Your task to perform on an android device: Go to accessibility settings Image 0: 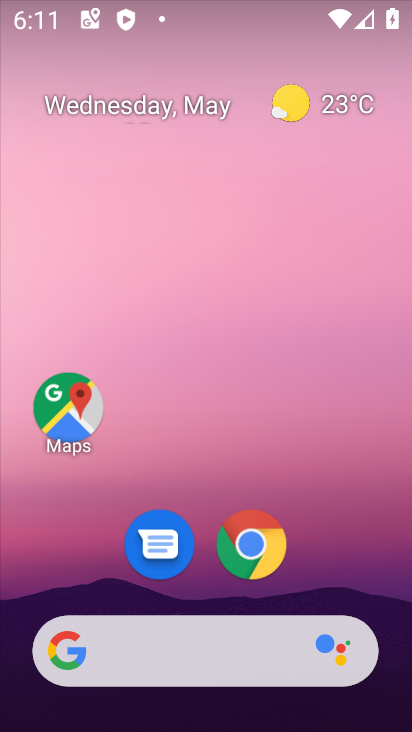
Step 0: drag from (341, 496) to (202, 19)
Your task to perform on an android device: Go to accessibility settings Image 1: 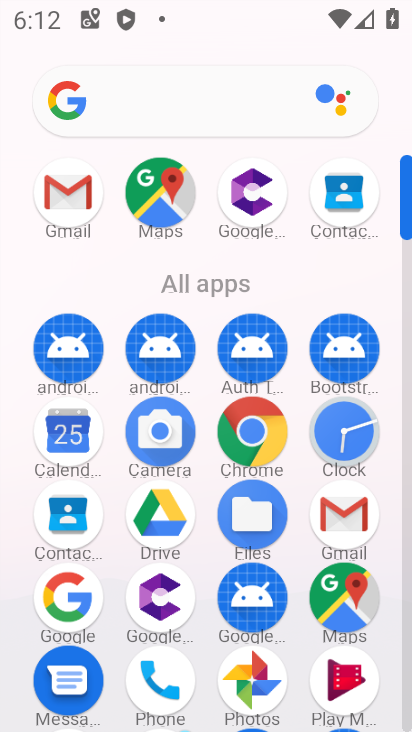
Step 1: drag from (202, 552) to (164, 176)
Your task to perform on an android device: Go to accessibility settings Image 2: 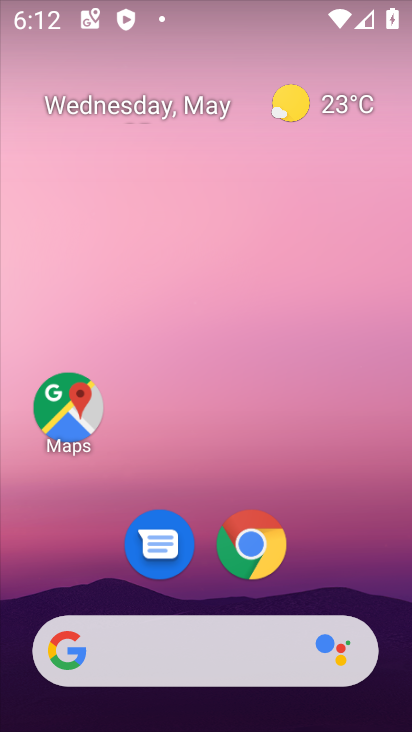
Step 2: drag from (279, 489) to (289, 131)
Your task to perform on an android device: Go to accessibility settings Image 3: 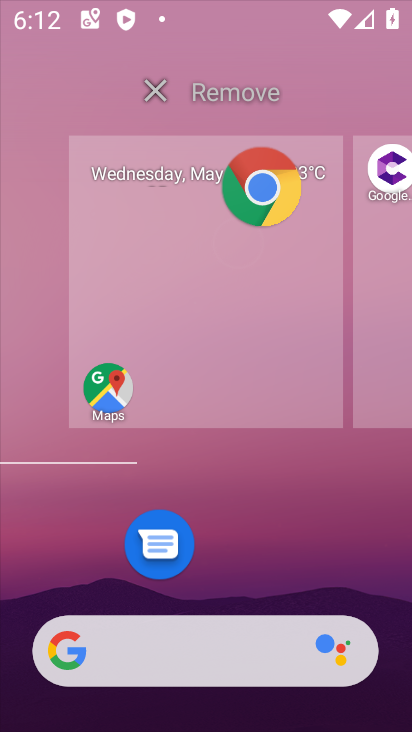
Step 3: click (341, 311)
Your task to perform on an android device: Go to accessibility settings Image 4: 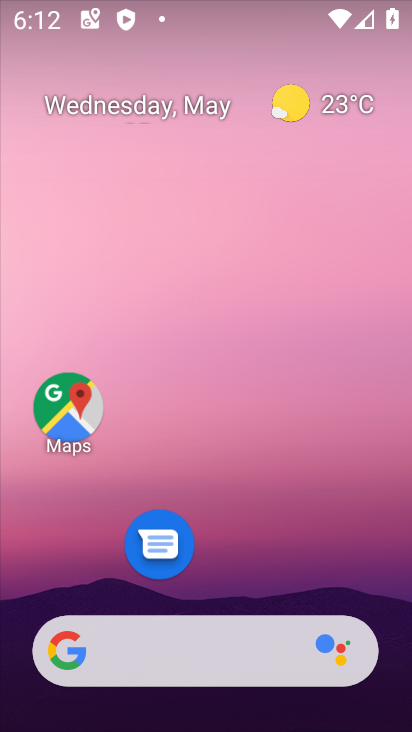
Step 4: click (341, 542)
Your task to perform on an android device: Go to accessibility settings Image 5: 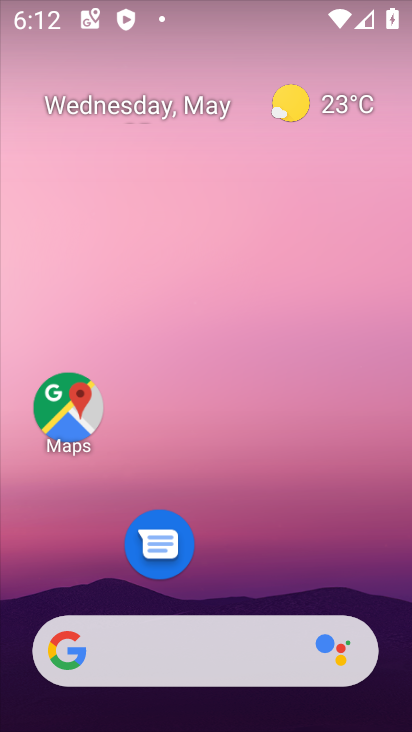
Step 5: drag from (283, 499) to (247, 129)
Your task to perform on an android device: Go to accessibility settings Image 6: 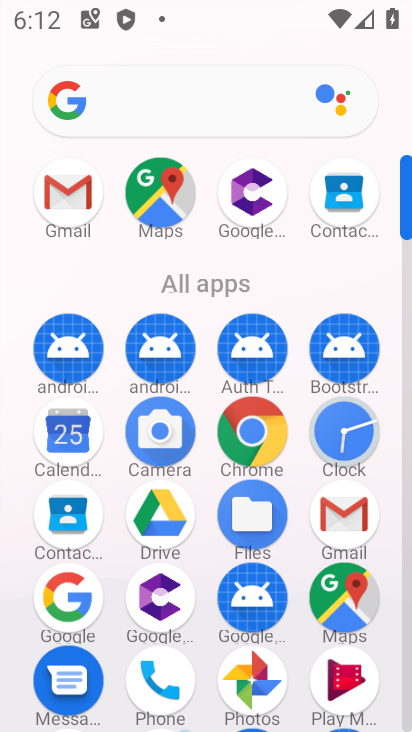
Step 6: drag from (209, 559) to (181, 236)
Your task to perform on an android device: Go to accessibility settings Image 7: 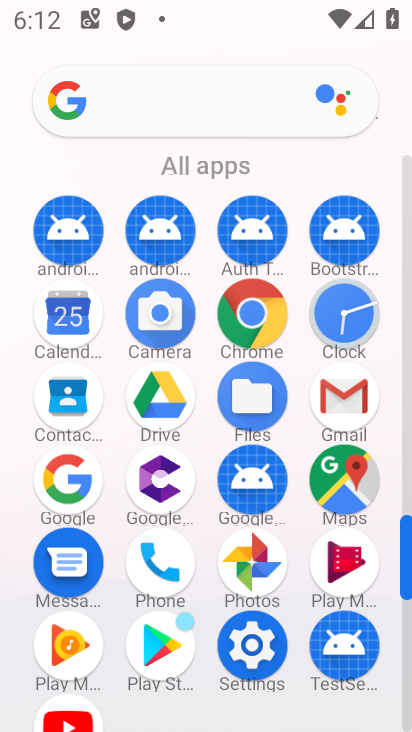
Step 7: click (253, 642)
Your task to perform on an android device: Go to accessibility settings Image 8: 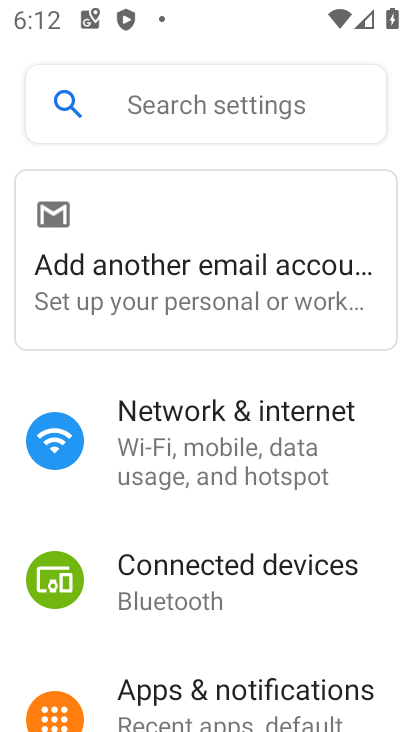
Step 8: drag from (254, 624) to (188, 252)
Your task to perform on an android device: Go to accessibility settings Image 9: 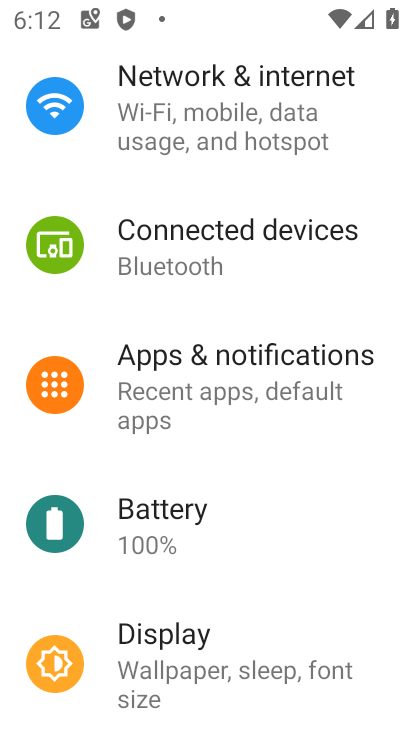
Step 9: drag from (257, 584) to (236, 234)
Your task to perform on an android device: Go to accessibility settings Image 10: 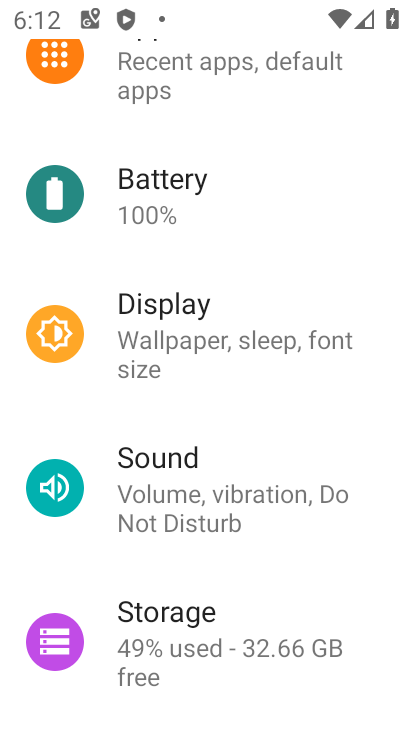
Step 10: drag from (281, 559) to (260, 209)
Your task to perform on an android device: Go to accessibility settings Image 11: 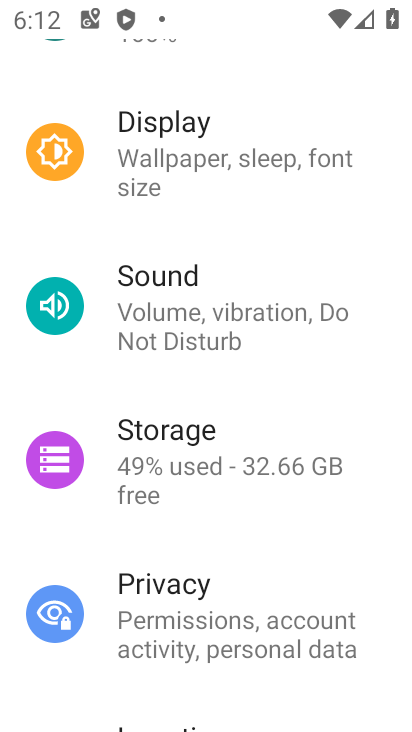
Step 11: drag from (253, 545) to (225, 229)
Your task to perform on an android device: Go to accessibility settings Image 12: 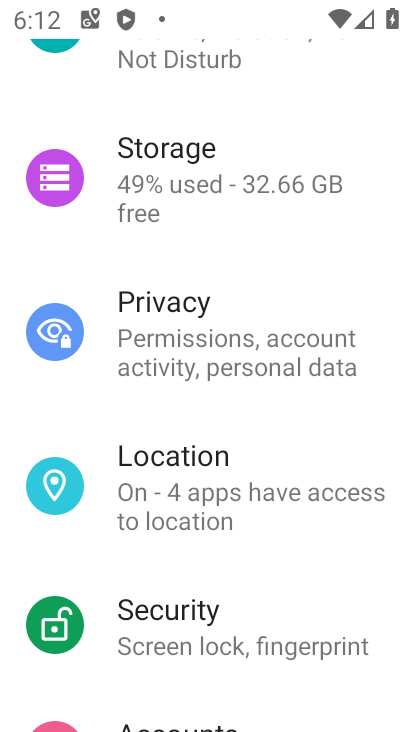
Step 12: drag from (263, 558) to (218, 82)
Your task to perform on an android device: Go to accessibility settings Image 13: 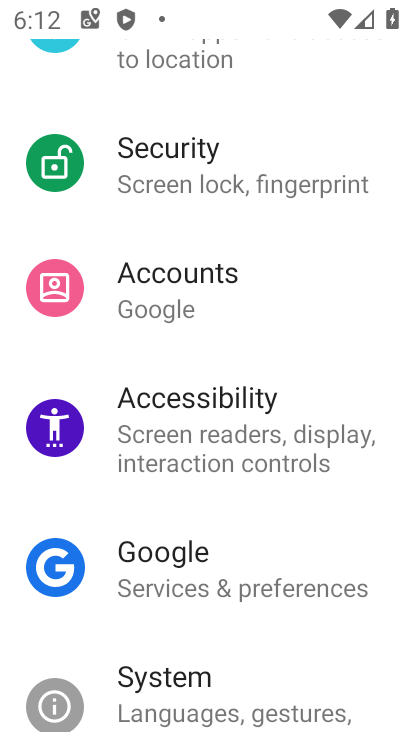
Step 13: click (215, 395)
Your task to perform on an android device: Go to accessibility settings Image 14: 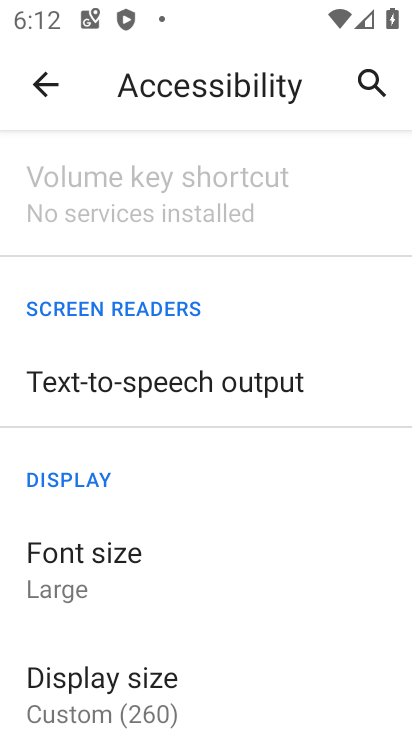
Step 14: task complete